Your task to perform on an android device: Open Yahoo.com Image 0: 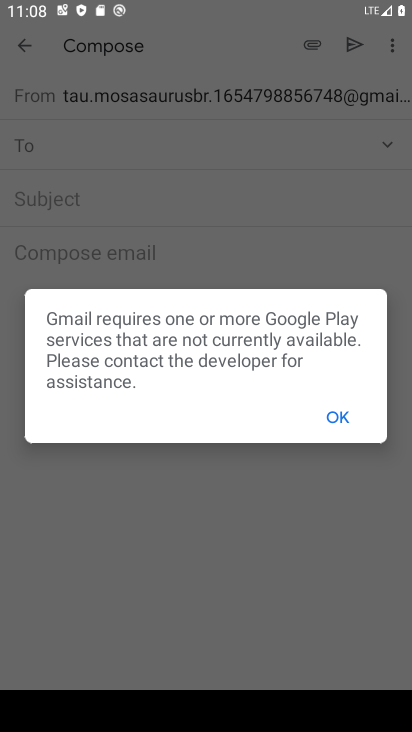
Step 0: press home button
Your task to perform on an android device: Open Yahoo.com Image 1: 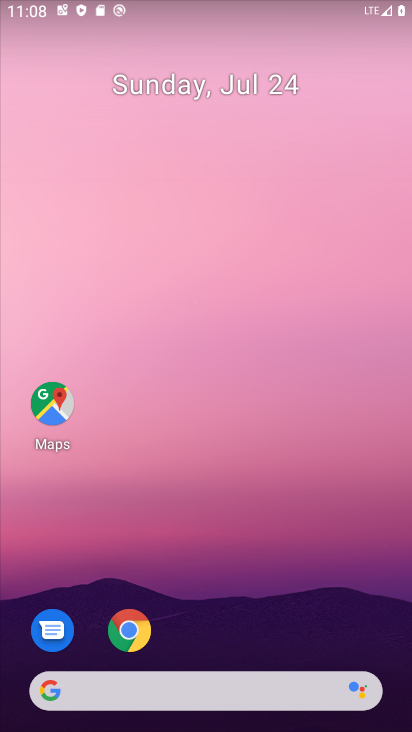
Step 1: click (133, 624)
Your task to perform on an android device: Open Yahoo.com Image 2: 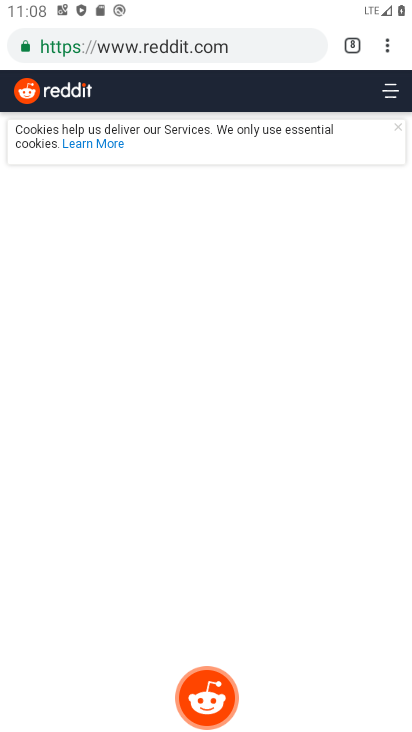
Step 2: click (353, 50)
Your task to perform on an android device: Open Yahoo.com Image 3: 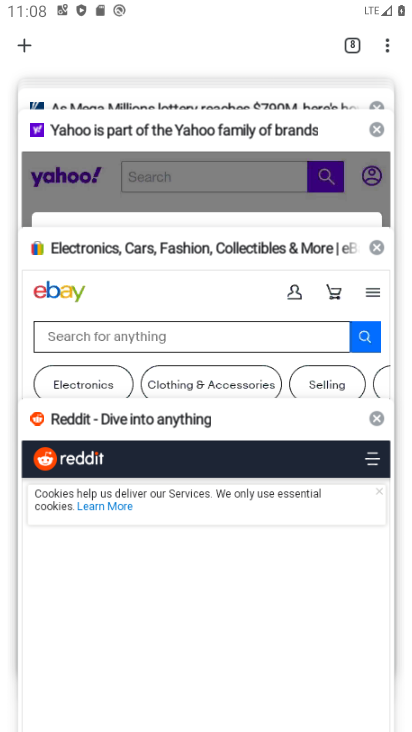
Step 3: click (28, 50)
Your task to perform on an android device: Open Yahoo.com Image 4: 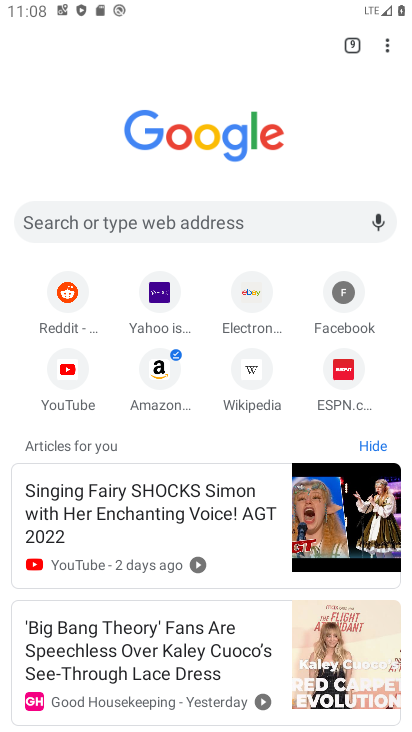
Step 4: click (164, 297)
Your task to perform on an android device: Open Yahoo.com Image 5: 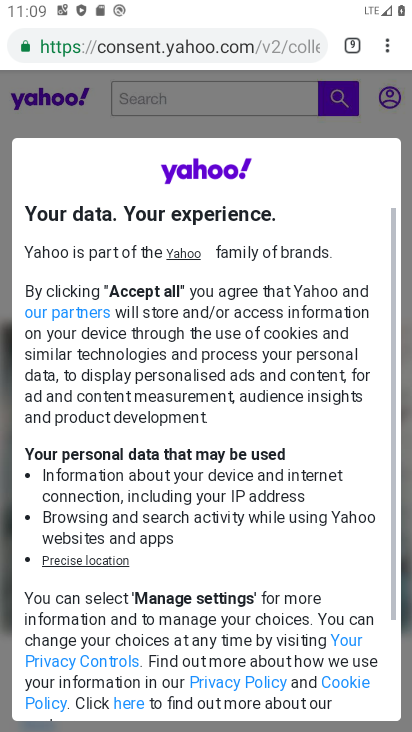
Step 5: task complete